Your task to perform on an android device: Go to Amazon Image 0: 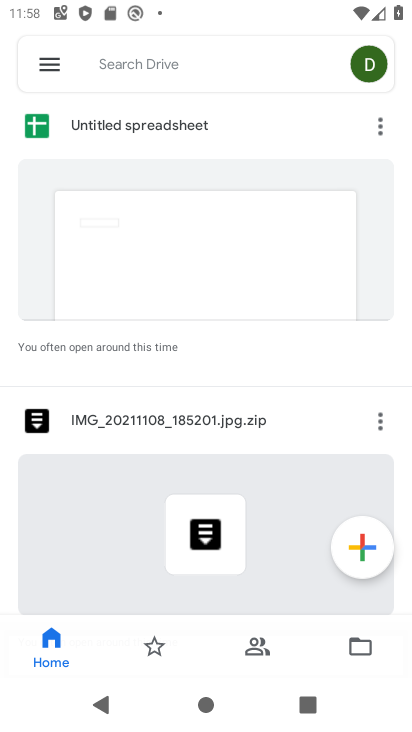
Step 0: press home button
Your task to perform on an android device: Go to Amazon Image 1: 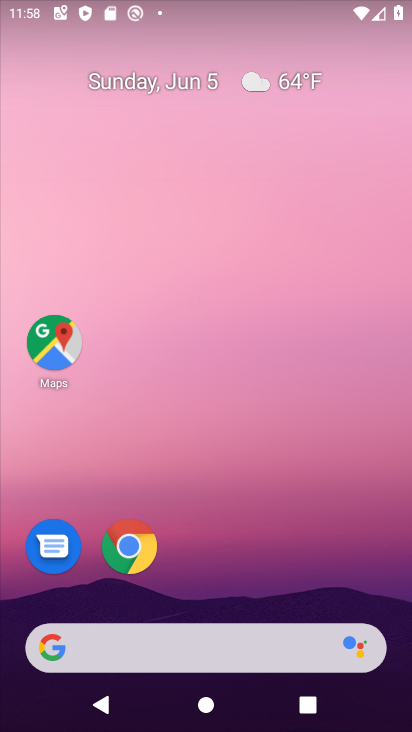
Step 1: click (121, 546)
Your task to perform on an android device: Go to Amazon Image 2: 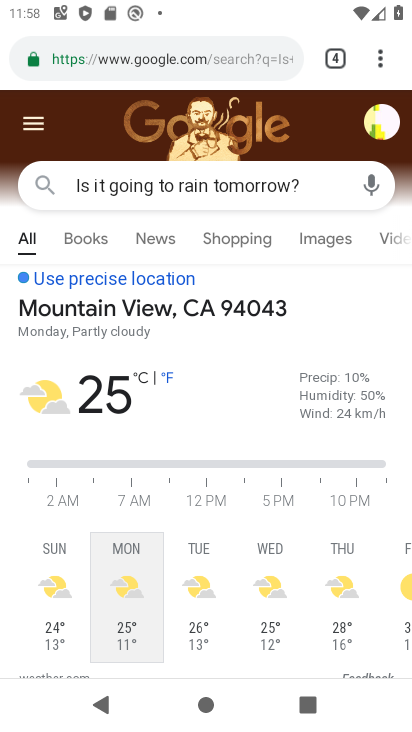
Step 2: click (381, 50)
Your task to perform on an android device: Go to Amazon Image 3: 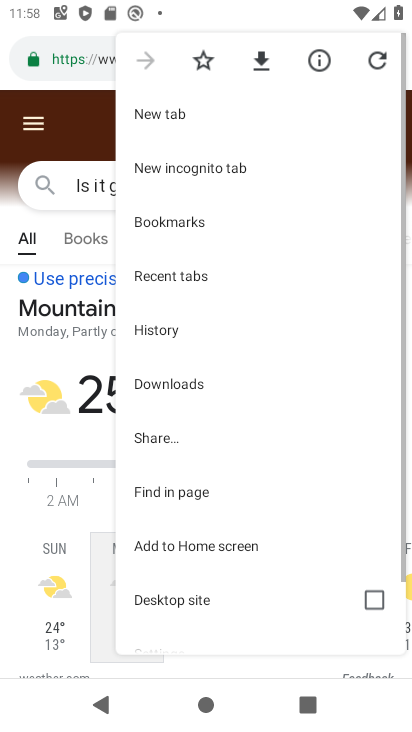
Step 3: click (208, 100)
Your task to perform on an android device: Go to Amazon Image 4: 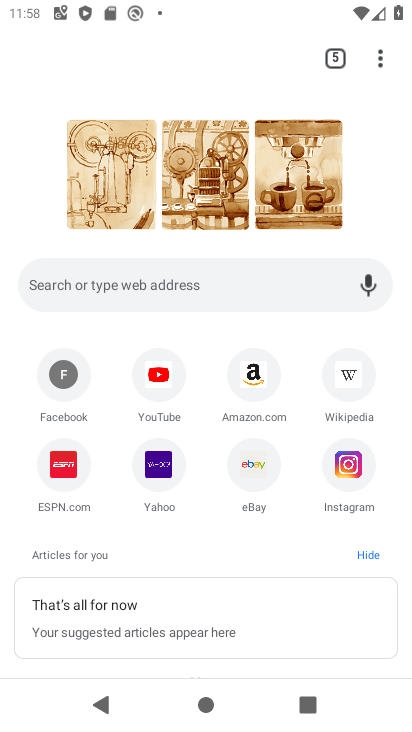
Step 4: click (253, 371)
Your task to perform on an android device: Go to Amazon Image 5: 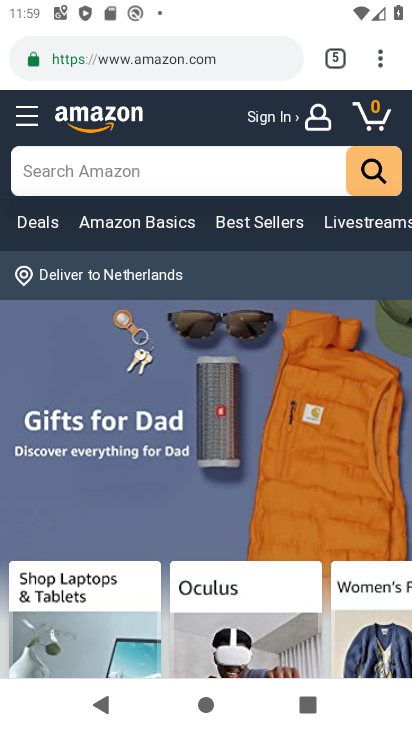
Step 5: task complete